Your task to perform on an android device: Go to Android settings Image 0: 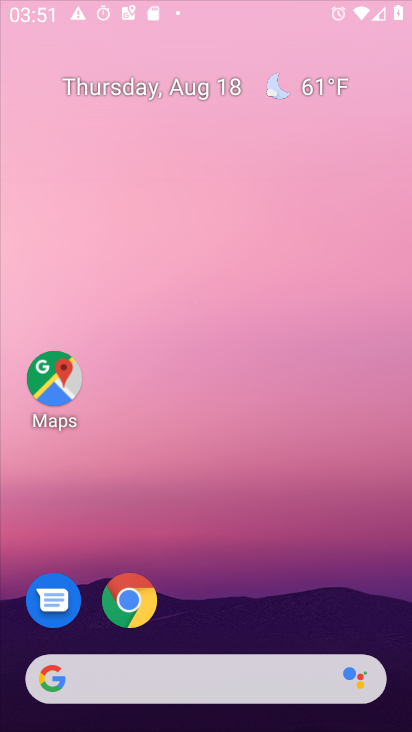
Step 0: press home button
Your task to perform on an android device: Go to Android settings Image 1: 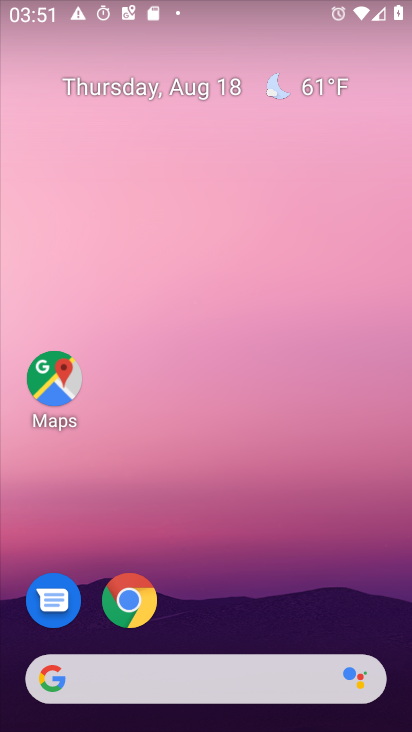
Step 1: drag from (242, 627) to (282, 0)
Your task to perform on an android device: Go to Android settings Image 2: 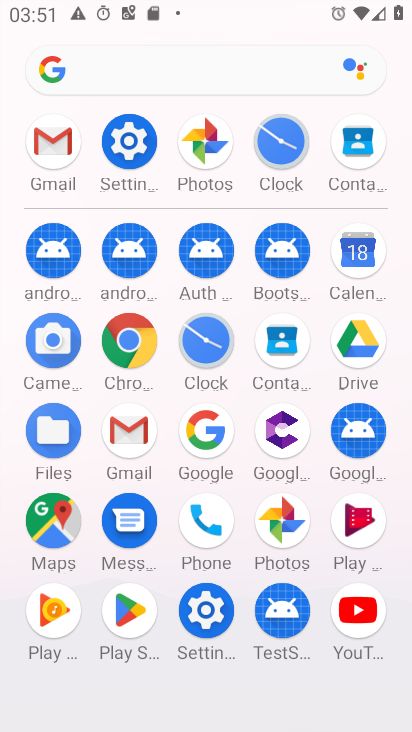
Step 2: click (132, 135)
Your task to perform on an android device: Go to Android settings Image 3: 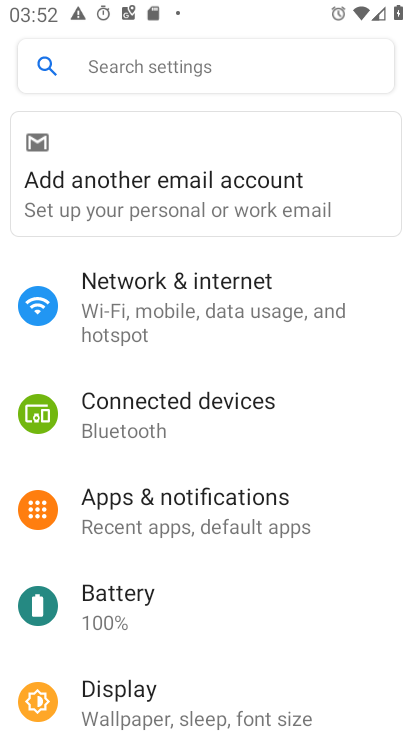
Step 3: task complete